Your task to perform on an android device: create a new album in the google photos Image 0: 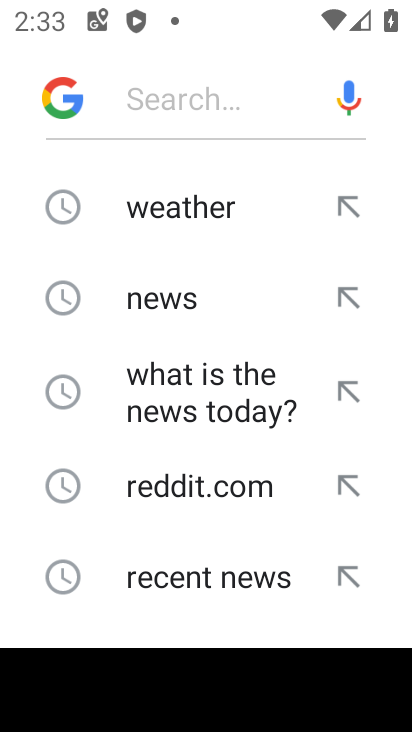
Step 0: press back button
Your task to perform on an android device: create a new album in the google photos Image 1: 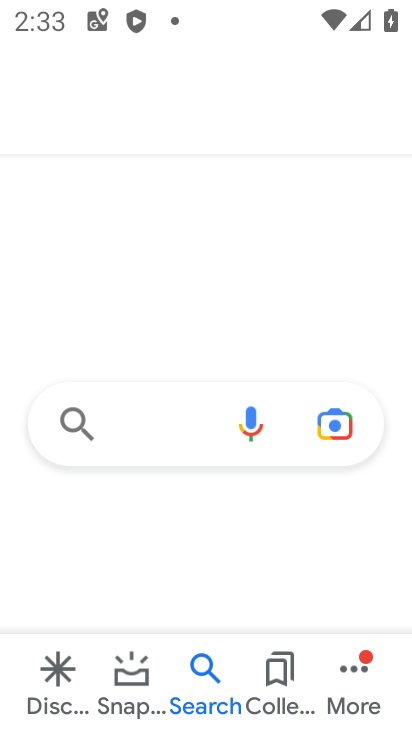
Step 1: press back button
Your task to perform on an android device: create a new album in the google photos Image 2: 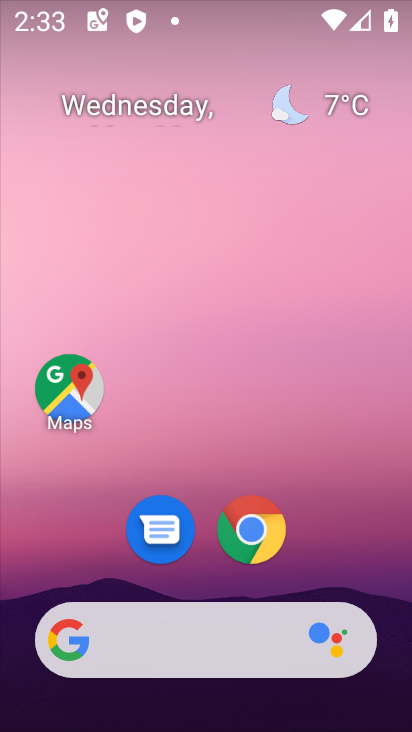
Step 2: drag from (24, 550) to (205, 186)
Your task to perform on an android device: create a new album in the google photos Image 3: 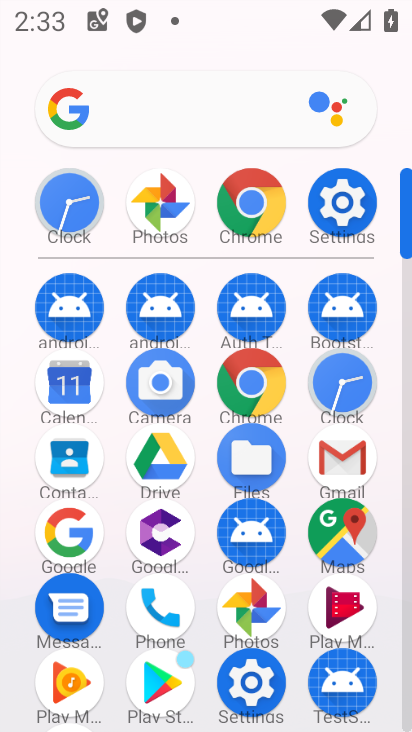
Step 3: click (254, 598)
Your task to perform on an android device: create a new album in the google photos Image 4: 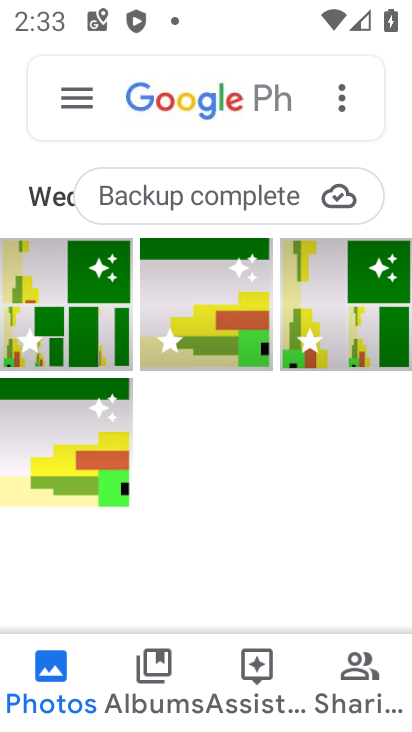
Step 4: click (26, 692)
Your task to perform on an android device: create a new album in the google photos Image 5: 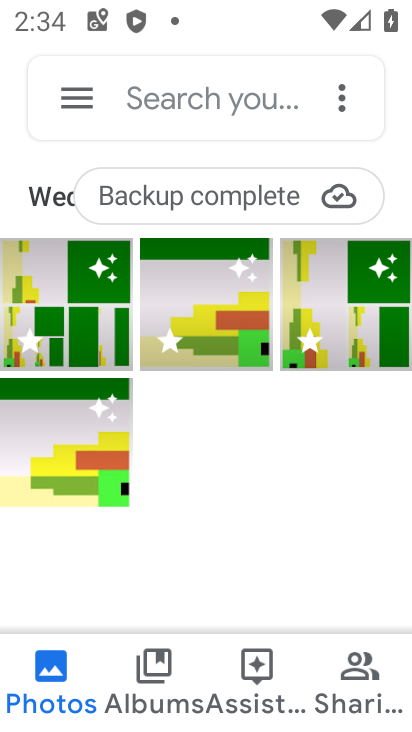
Step 5: task complete